Your task to perform on an android device: toggle sleep mode Image 0: 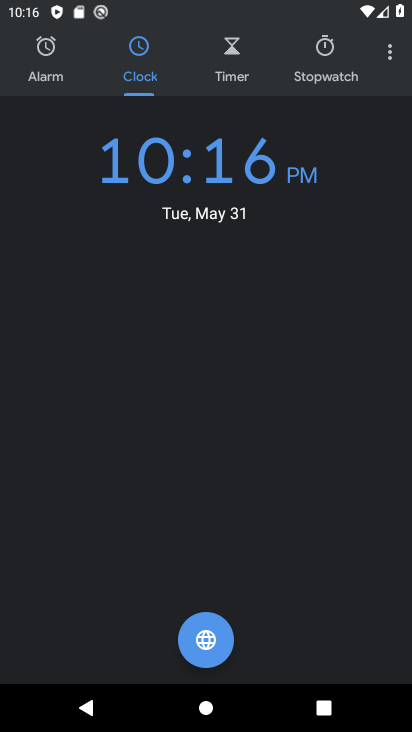
Step 0: press back button
Your task to perform on an android device: toggle sleep mode Image 1: 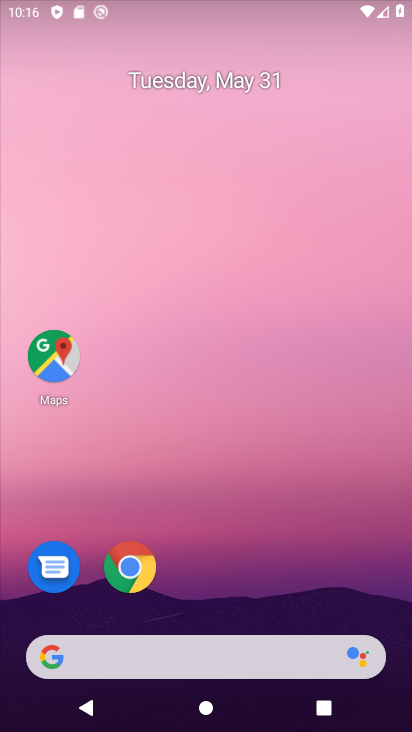
Step 1: drag from (207, 600) to (295, 54)
Your task to perform on an android device: toggle sleep mode Image 2: 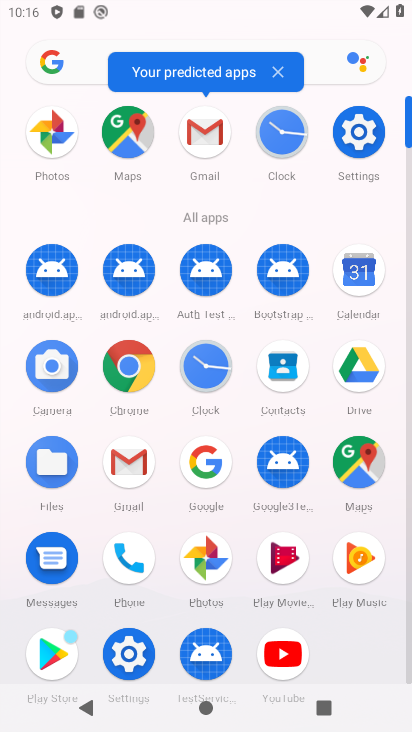
Step 2: click (366, 127)
Your task to perform on an android device: toggle sleep mode Image 3: 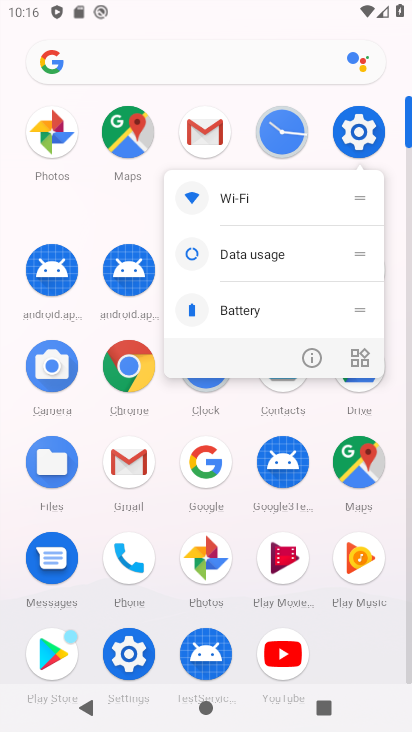
Step 3: click (364, 139)
Your task to perform on an android device: toggle sleep mode Image 4: 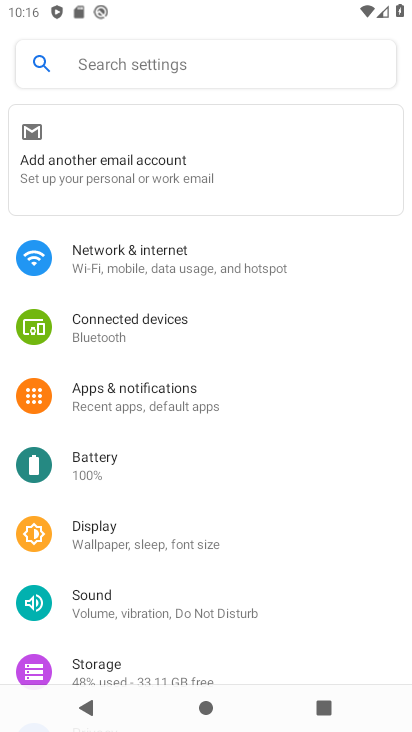
Step 4: click (126, 66)
Your task to perform on an android device: toggle sleep mode Image 5: 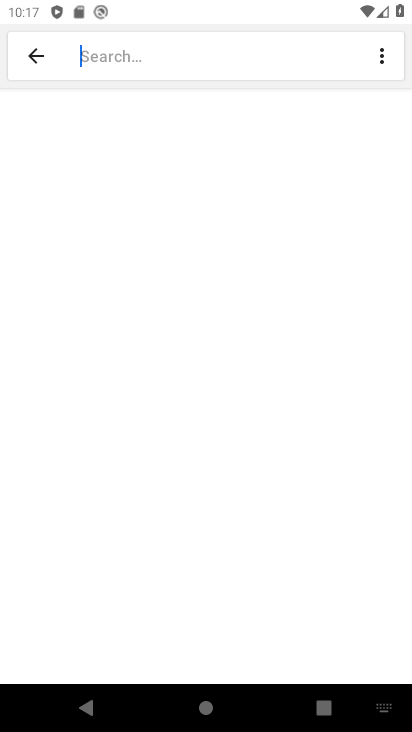
Step 5: type "sleep mode"
Your task to perform on an android device: toggle sleep mode Image 6: 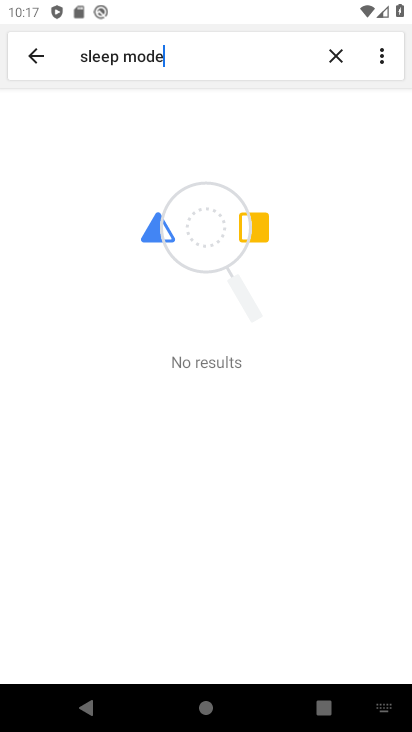
Step 6: task complete